Your task to perform on an android device: change timer sound Image 0: 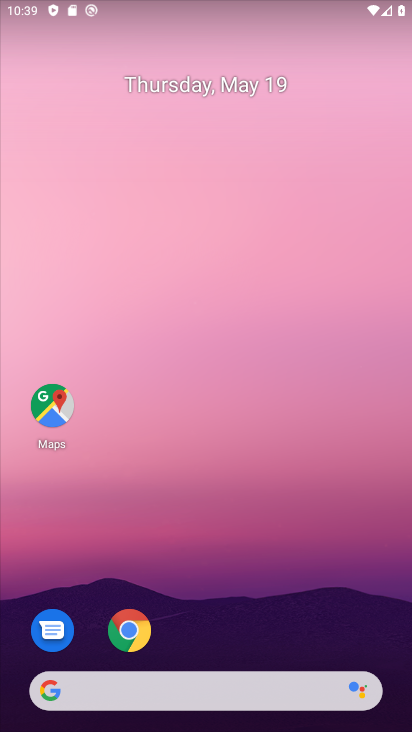
Step 0: drag from (222, 649) to (191, 124)
Your task to perform on an android device: change timer sound Image 1: 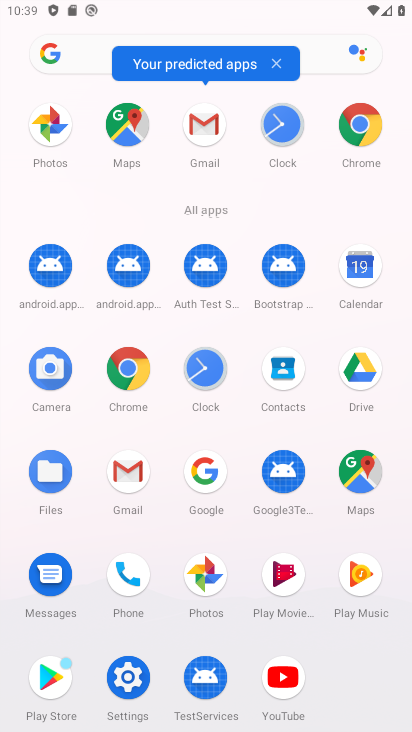
Step 1: click (283, 140)
Your task to perform on an android device: change timer sound Image 2: 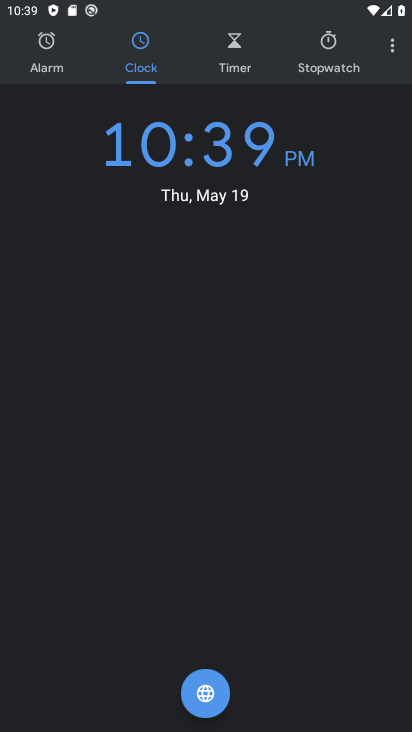
Step 2: click (393, 46)
Your task to perform on an android device: change timer sound Image 3: 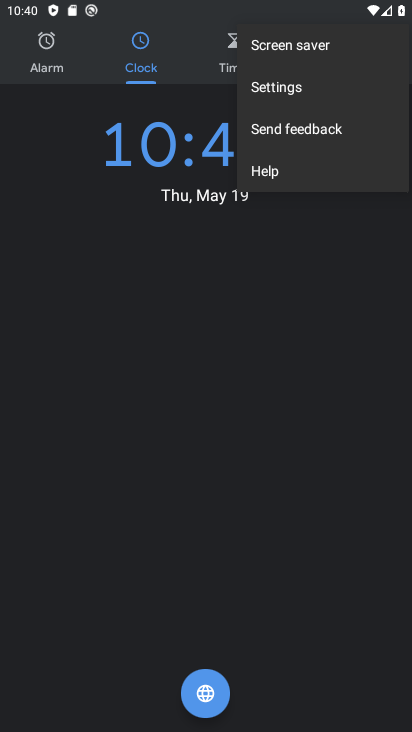
Step 3: click (363, 97)
Your task to perform on an android device: change timer sound Image 4: 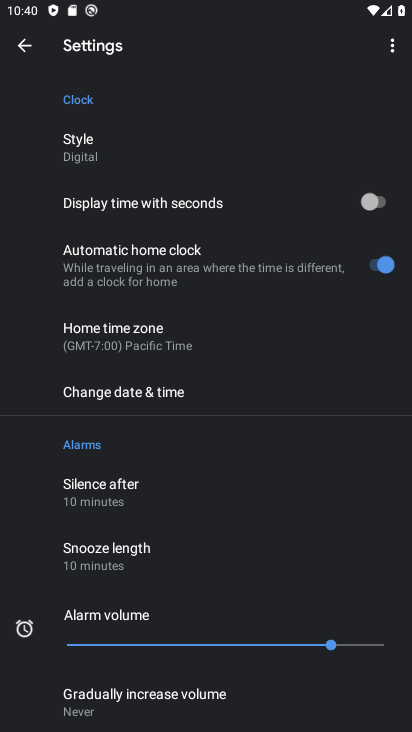
Step 4: drag from (239, 581) to (218, 205)
Your task to perform on an android device: change timer sound Image 5: 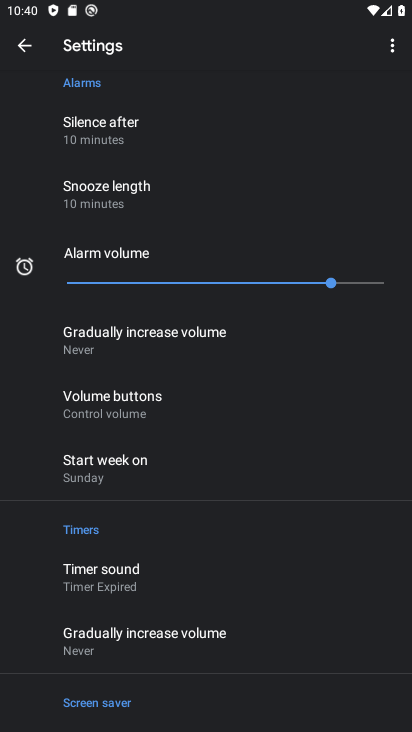
Step 5: click (230, 566)
Your task to perform on an android device: change timer sound Image 6: 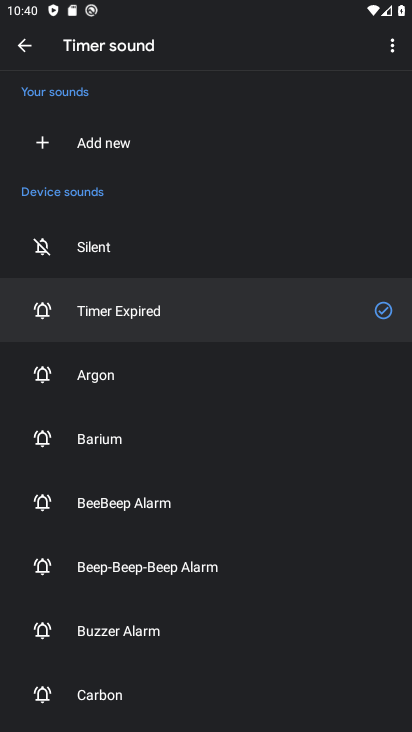
Step 6: click (201, 550)
Your task to perform on an android device: change timer sound Image 7: 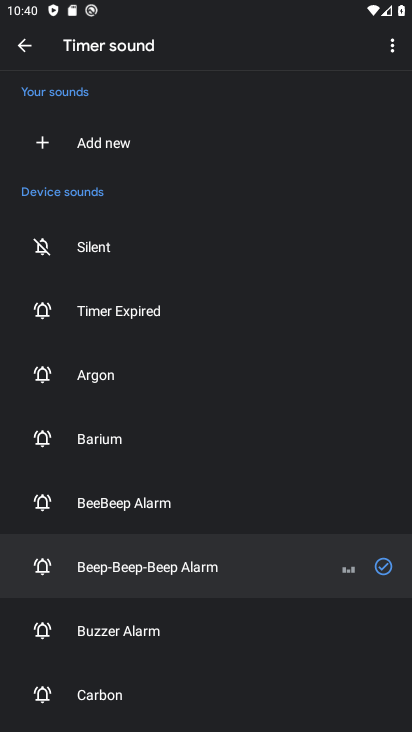
Step 7: task complete